Your task to perform on an android device: open chrome and create a bookmark for the current page Image 0: 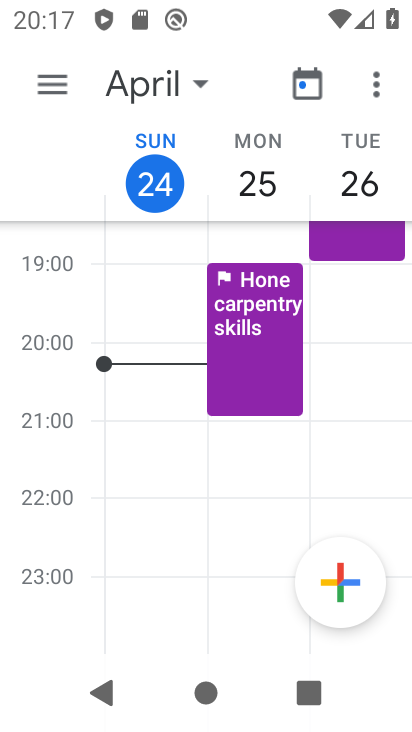
Step 0: press home button
Your task to perform on an android device: open chrome and create a bookmark for the current page Image 1: 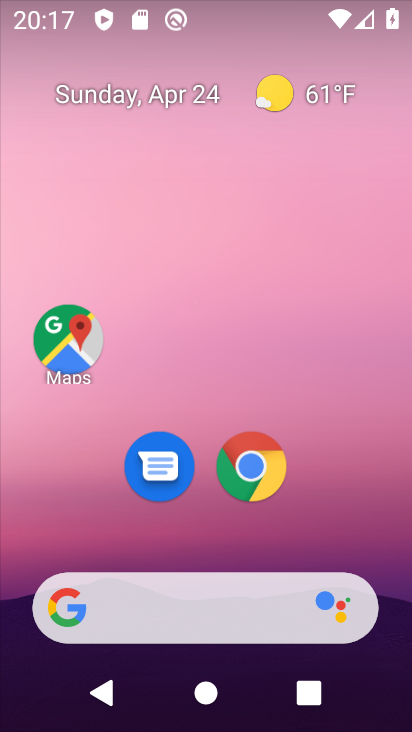
Step 1: click (267, 472)
Your task to perform on an android device: open chrome and create a bookmark for the current page Image 2: 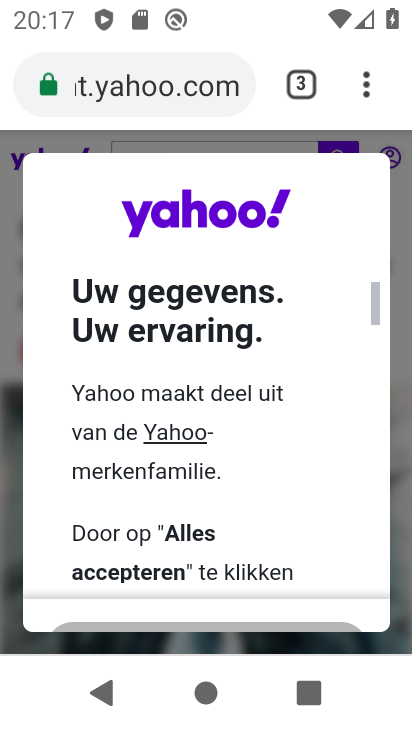
Step 2: click (166, 96)
Your task to perform on an android device: open chrome and create a bookmark for the current page Image 3: 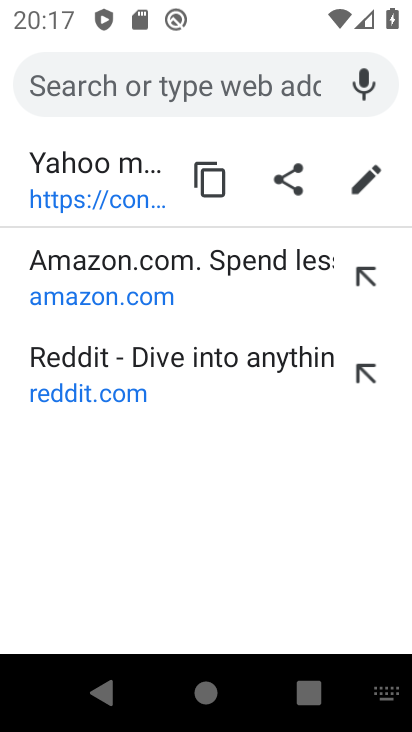
Step 3: type "yocakes"
Your task to perform on an android device: open chrome and create a bookmark for the current page Image 4: 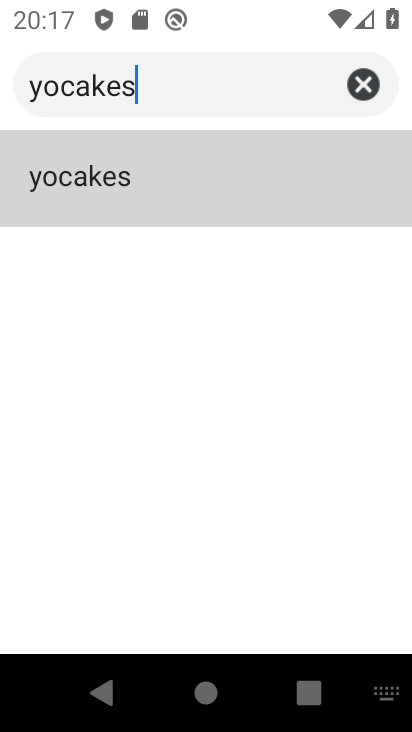
Step 4: click (100, 188)
Your task to perform on an android device: open chrome and create a bookmark for the current page Image 5: 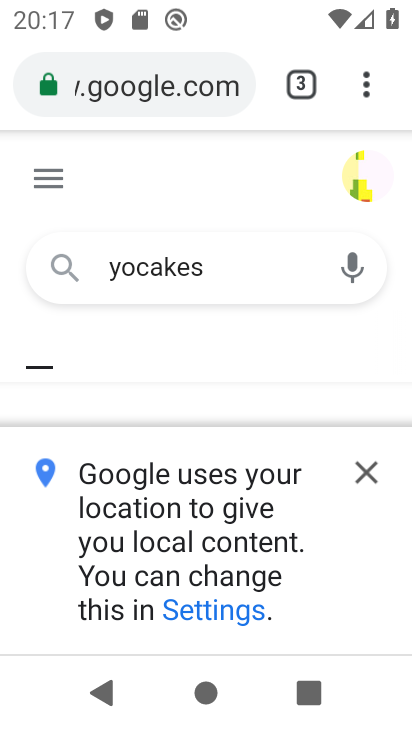
Step 5: click (367, 474)
Your task to perform on an android device: open chrome and create a bookmark for the current page Image 6: 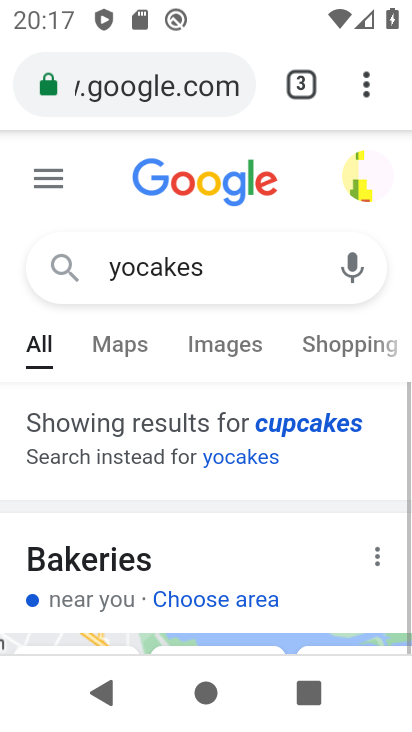
Step 6: drag from (260, 520) to (264, 283)
Your task to perform on an android device: open chrome and create a bookmark for the current page Image 7: 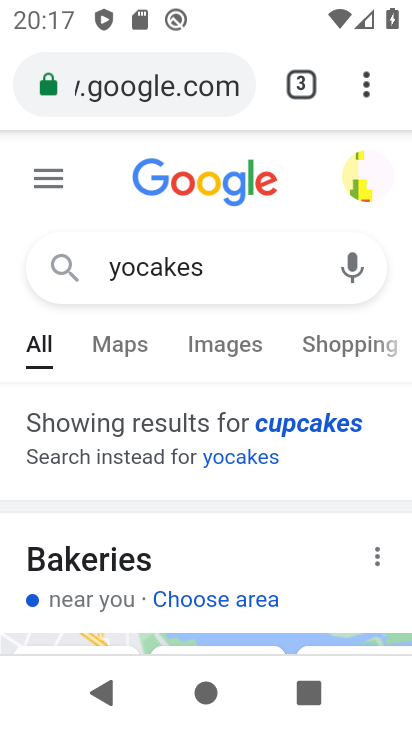
Step 7: click (368, 86)
Your task to perform on an android device: open chrome and create a bookmark for the current page Image 8: 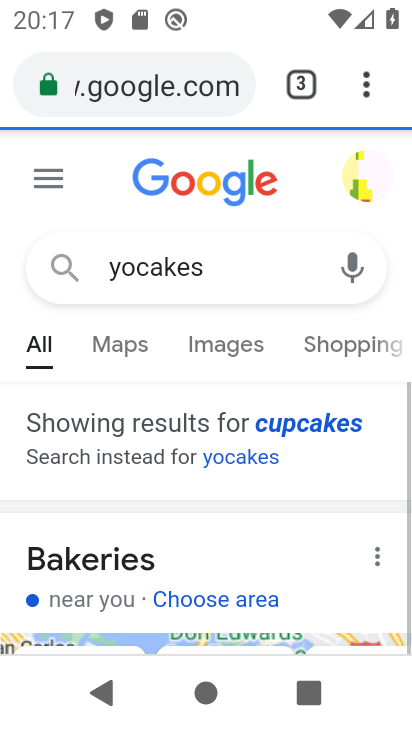
Step 8: click (366, 91)
Your task to perform on an android device: open chrome and create a bookmark for the current page Image 9: 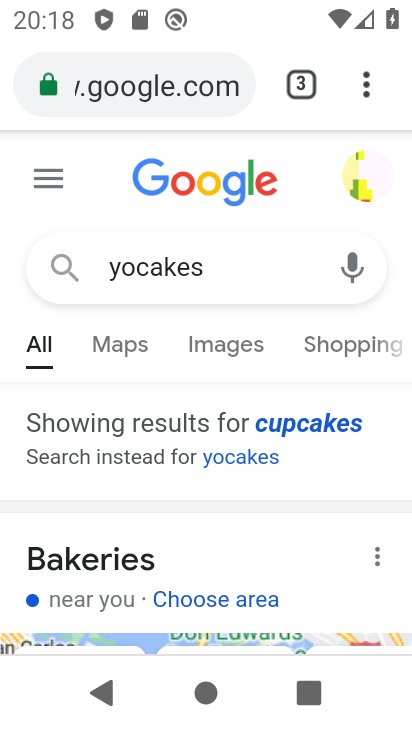
Step 9: click (360, 89)
Your task to perform on an android device: open chrome and create a bookmark for the current page Image 10: 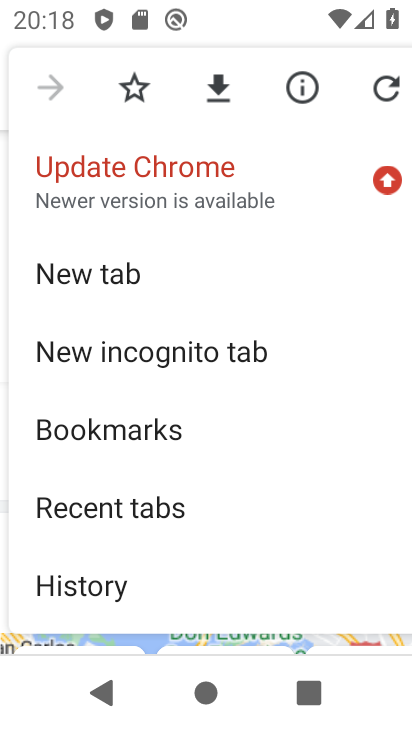
Step 10: click (135, 81)
Your task to perform on an android device: open chrome and create a bookmark for the current page Image 11: 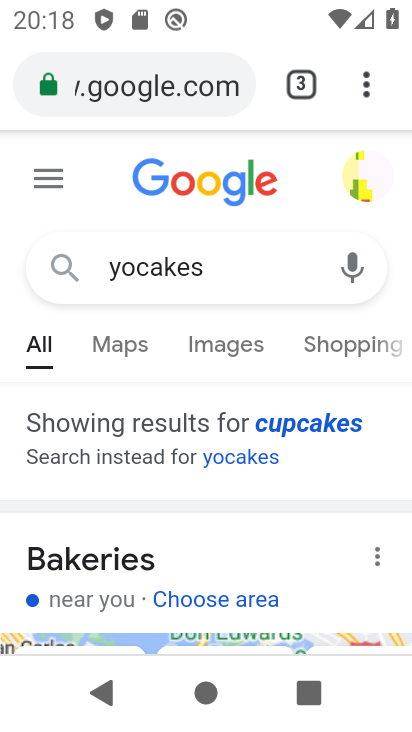
Step 11: task complete